Your task to perform on an android device: What's the weather? Image 0: 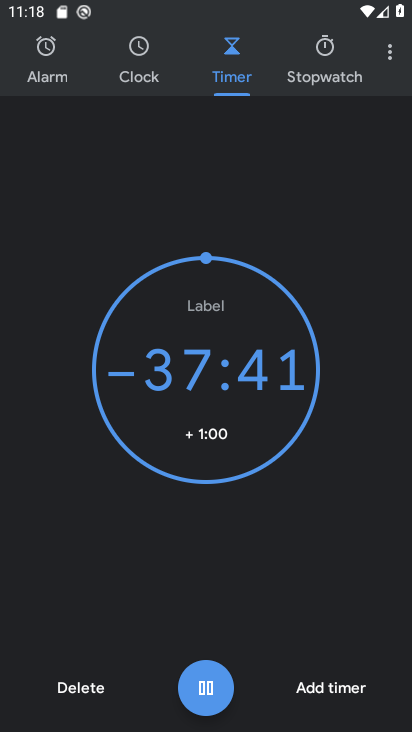
Step 0: drag from (244, 349) to (194, 174)
Your task to perform on an android device: What's the weather? Image 1: 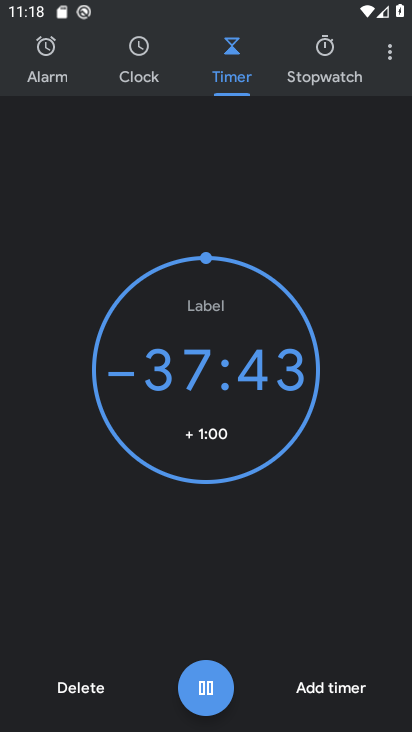
Step 1: drag from (228, 413) to (212, 173)
Your task to perform on an android device: What's the weather? Image 2: 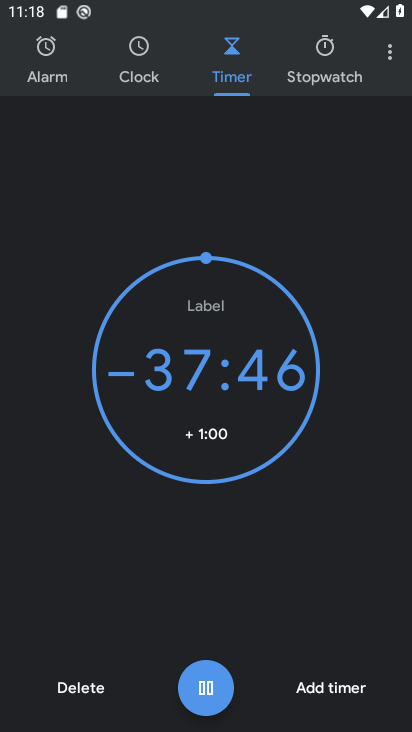
Step 2: click (66, 686)
Your task to perform on an android device: What's the weather? Image 3: 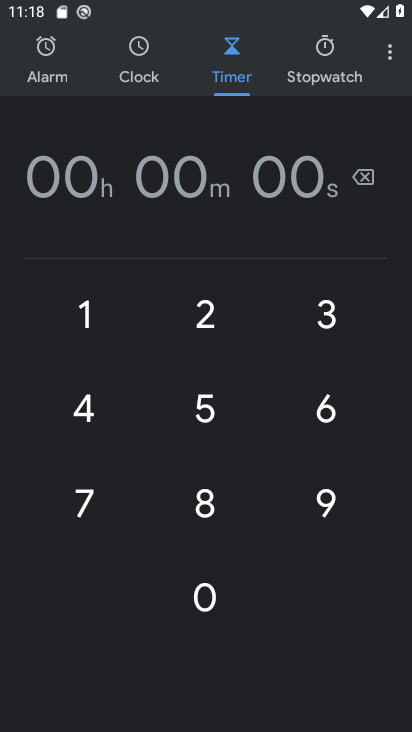
Step 3: press home button
Your task to perform on an android device: What's the weather? Image 4: 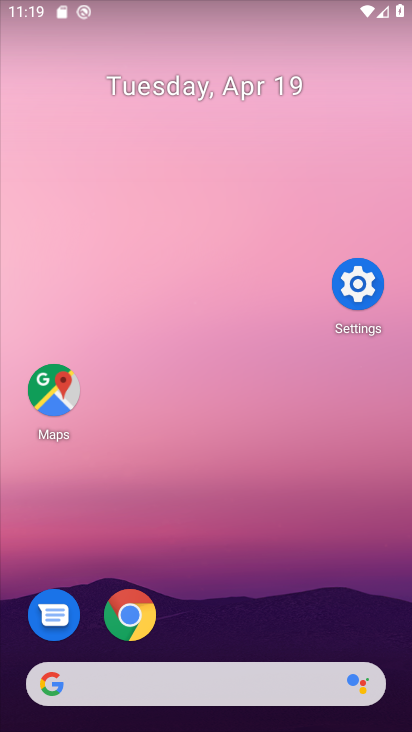
Step 4: drag from (217, 509) to (236, 135)
Your task to perform on an android device: What's the weather? Image 5: 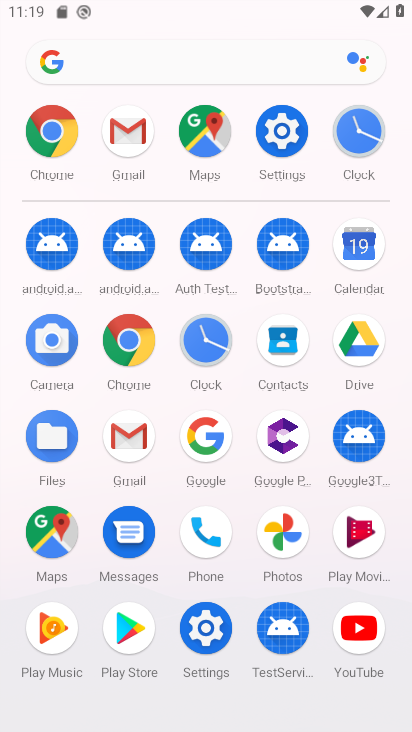
Step 5: click (126, 332)
Your task to perform on an android device: What's the weather? Image 6: 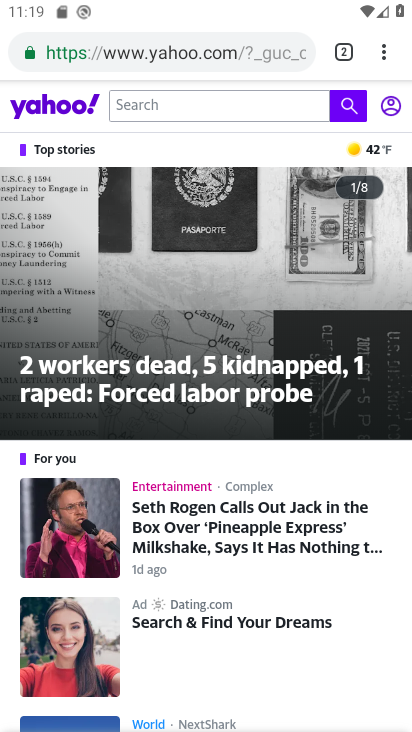
Step 6: click (238, 68)
Your task to perform on an android device: What's the weather? Image 7: 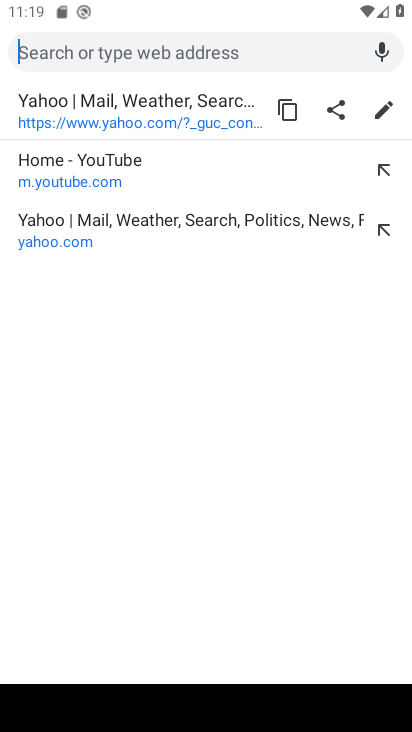
Step 7: type "weather"
Your task to perform on an android device: What's the weather? Image 8: 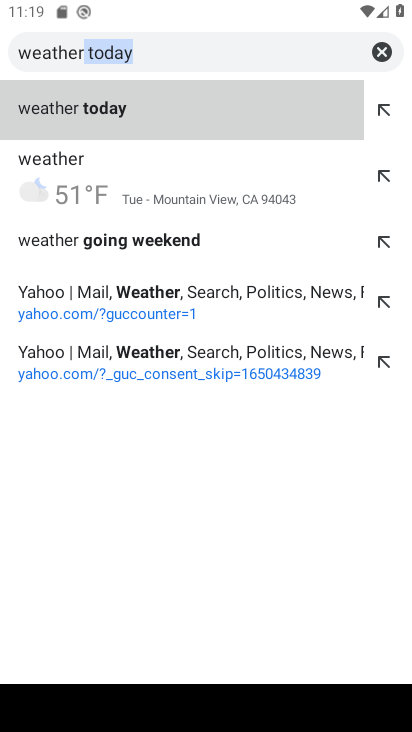
Step 8: click (58, 170)
Your task to perform on an android device: What's the weather? Image 9: 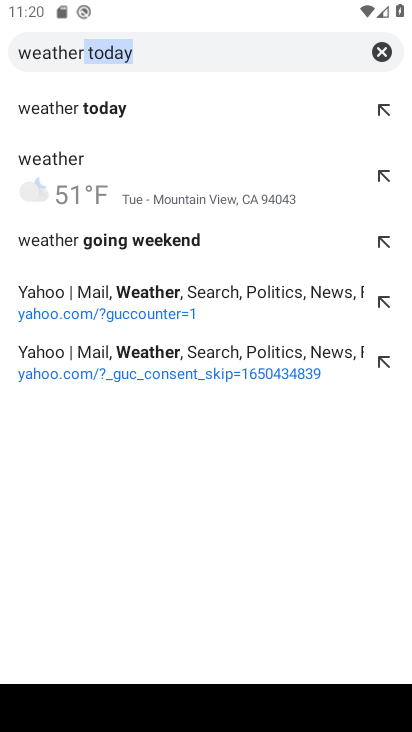
Step 9: click (78, 165)
Your task to perform on an android device: What's the weather? Image 10: 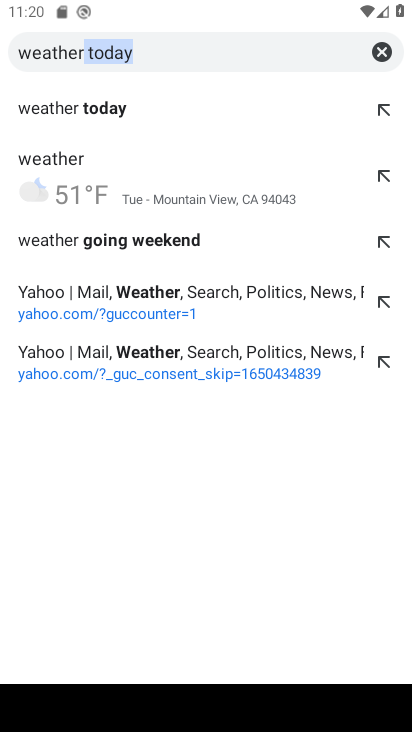
Step 10: click (186, 175)
Your task to perform on an android device: What's the weather? Image 11: 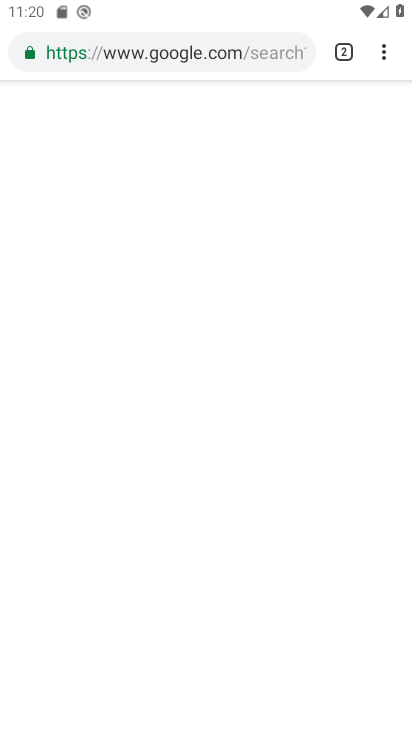
Step 11: task complete